Your task to perform on an android device: toggle data saver in the chrome app Image 0: 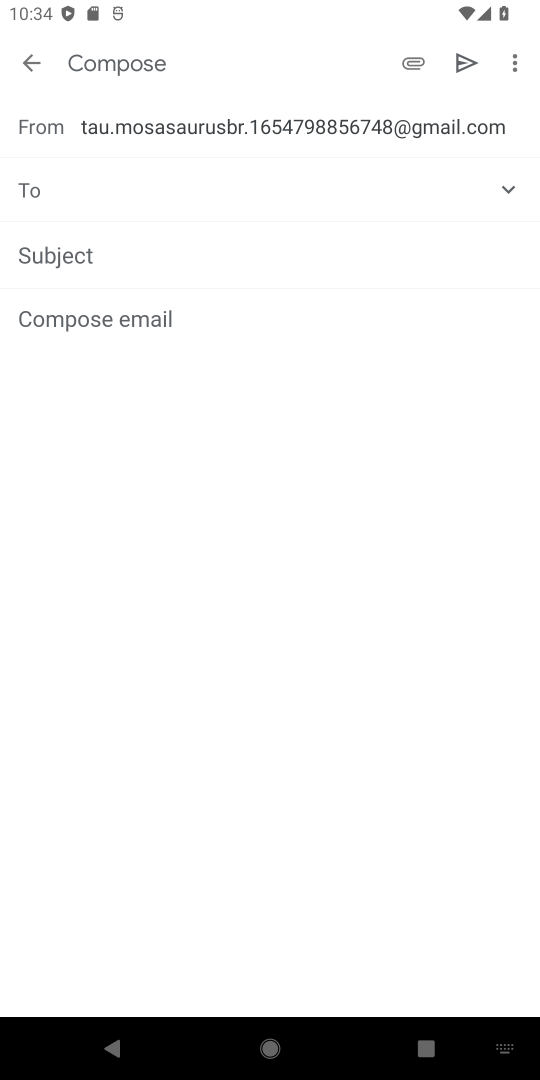
Step 0: press home button
Your task to perform on an android device: toggle data saver in the chrome app Image 1: 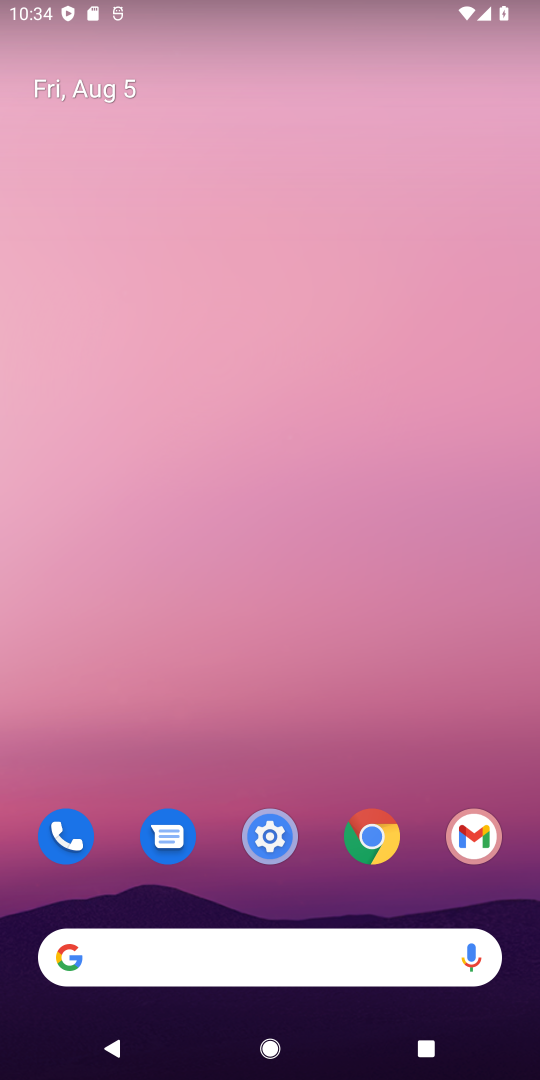
Step 1: drag from (379, 659) to (390, 94)
Your task to perform on an android device: toggle data saver in the chrome app Image 2: 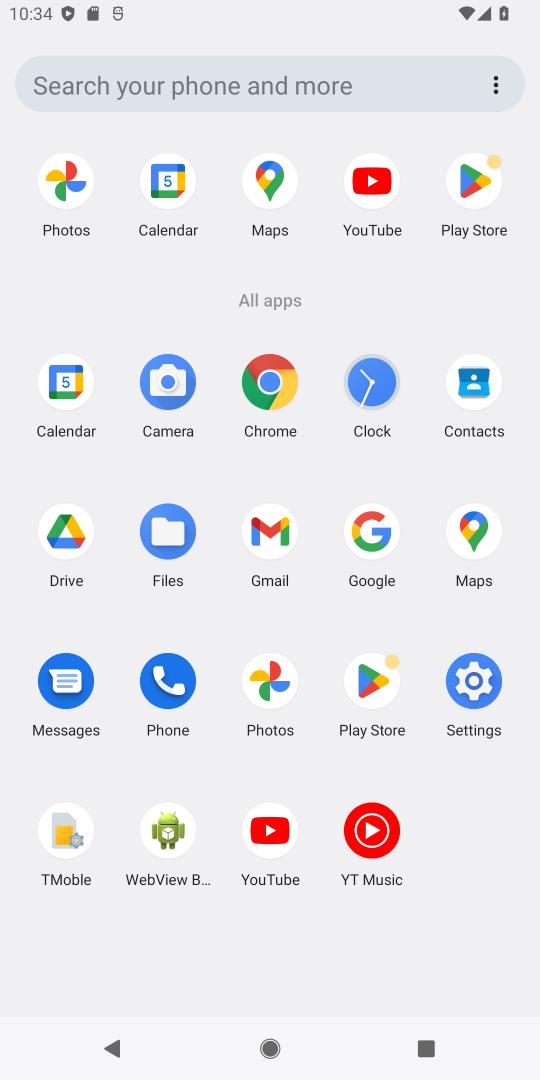
Step 2: click (267, 379)
Your task to perform on an android device: toggle data saver in the chrome app Image 3: 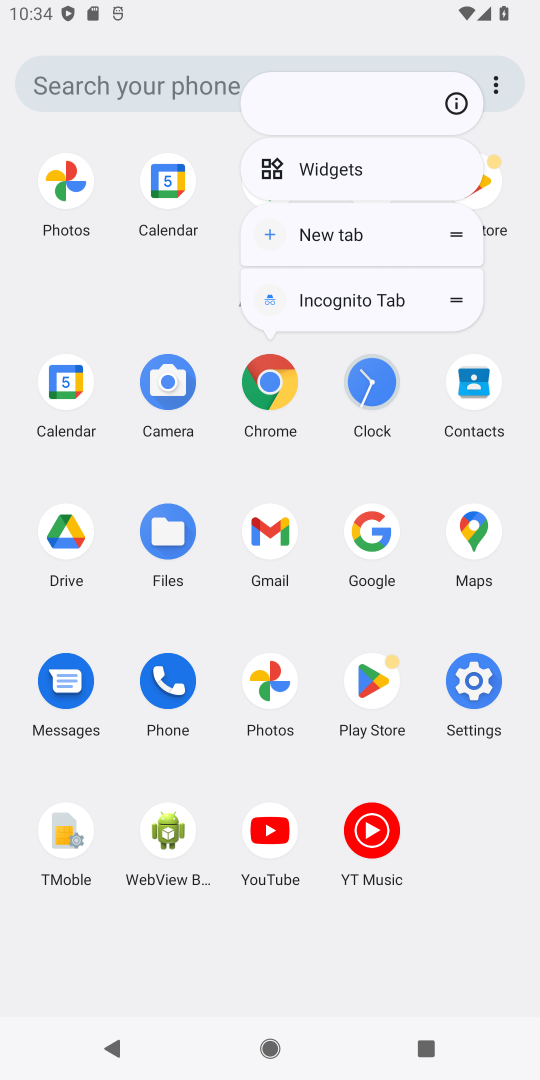
Step 3: click (269, 380)
Your task to perform on an android device: toggle data saver in the chrome app Image 4: 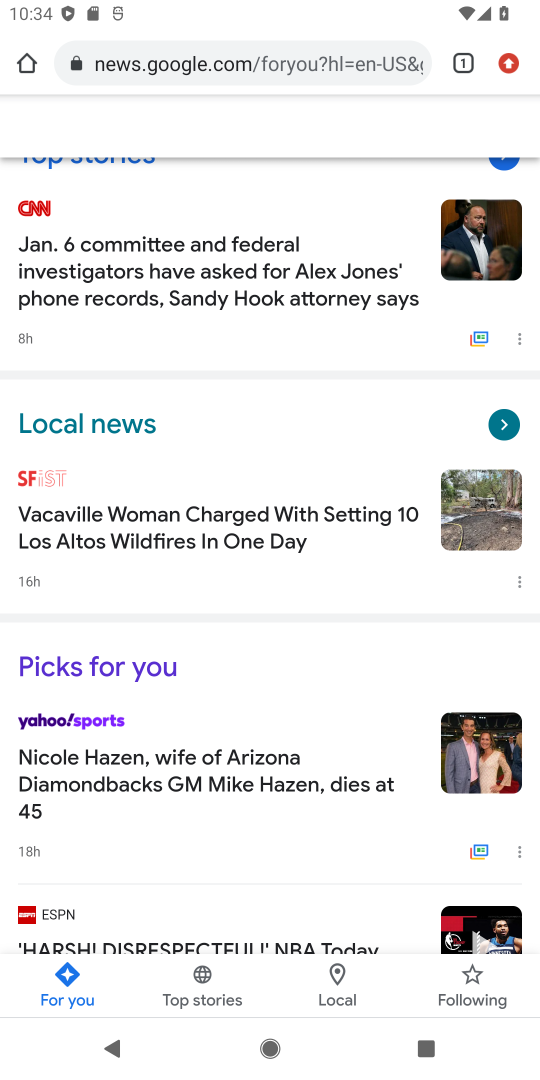
Step 4: drag from (529, 54) to (336, 821)
Your task to perform on an android device: toggle data saver in the chrome app Image 5: 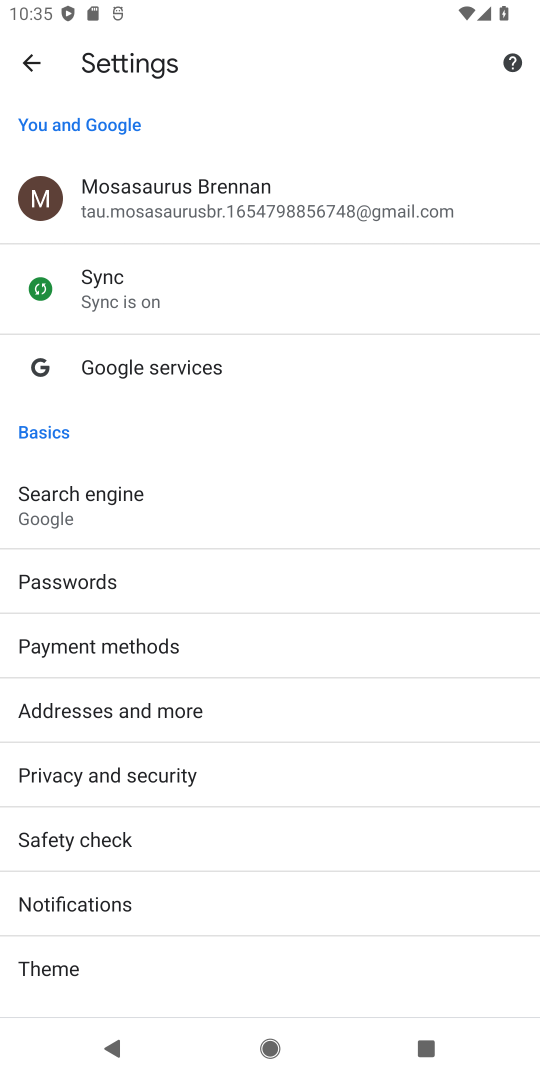
Step 5: drag from (246, 893) to (289, 232)
Your task to perform on an android device: toggle data saver in the chrome app Image 6: 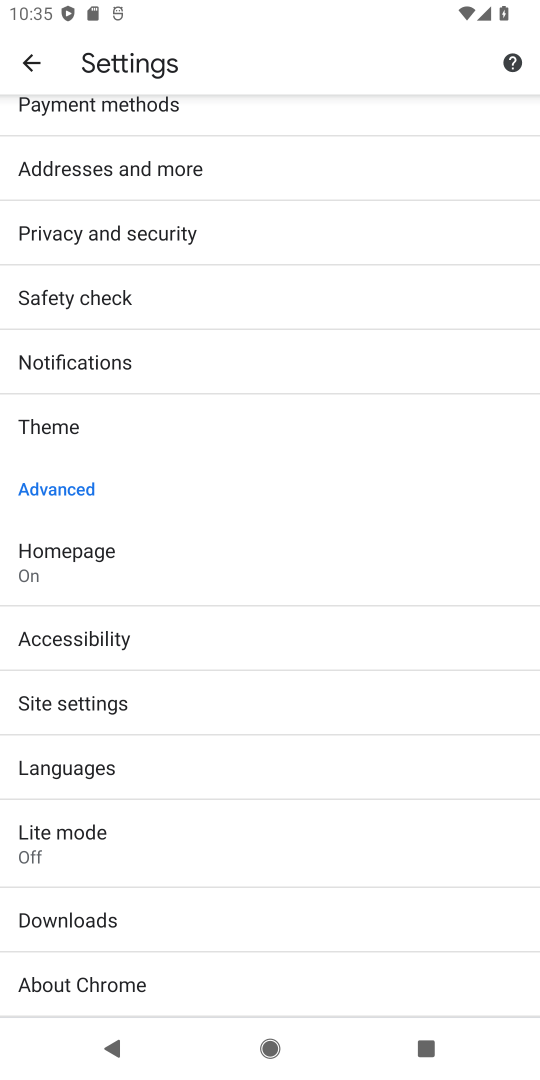
Step 6: click (91, 829)
Your task to perform on an android device: toggle data saver in the chrome app Image 7: 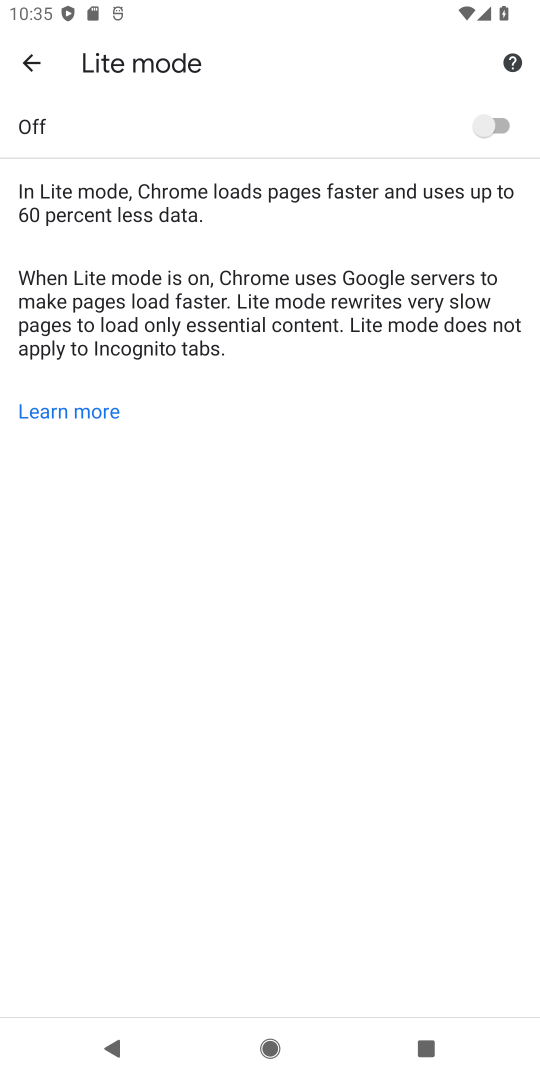
Step 7: click (479, 134)
Your task to perform on an android device: toggle data saver in the chrome app Image 8: 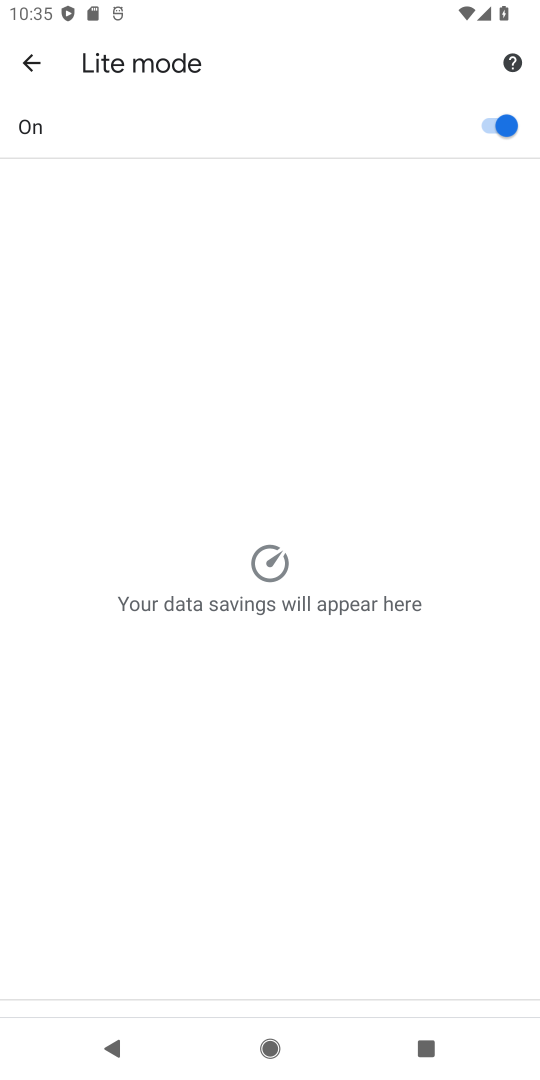
Step 8: task complete